Your task to perform on an android device: Go to eBay Image 0: 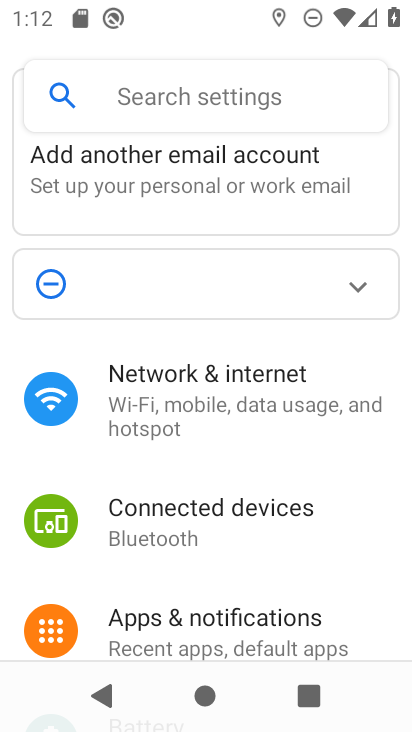
Step 0: press home button
Your task to perform on an android device: Go to eBay Image 1: 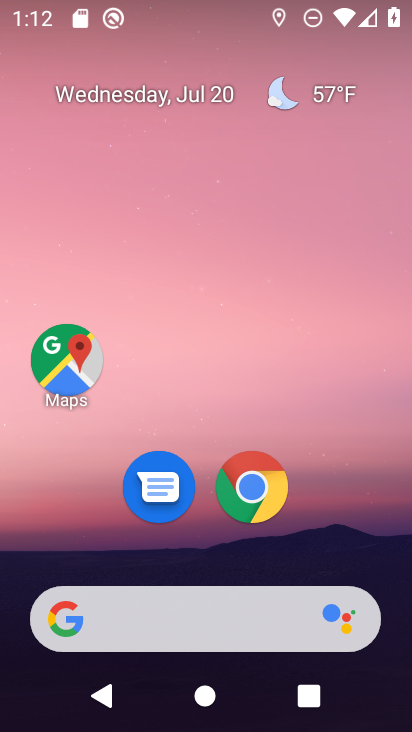
Step 1: drag from (348, 536) to (354, 178)
Your task to perform on an android device: Go to eBay Image 2: 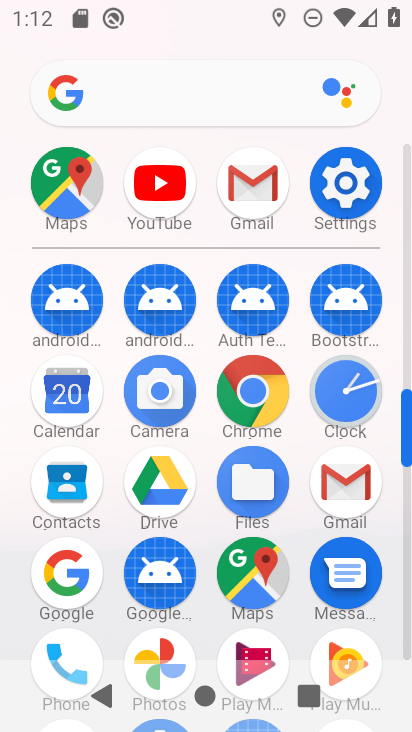
Step 2: click (269, 404)
Your task to perform on an android device: Go to eBay Image 3: 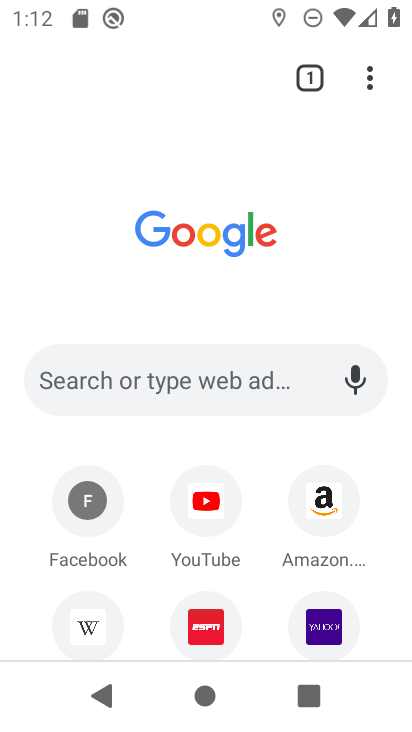
Step 3: drag from (250, 528) to (258, 357)
Your task to perform on an android device: Go to eBay Image 4: 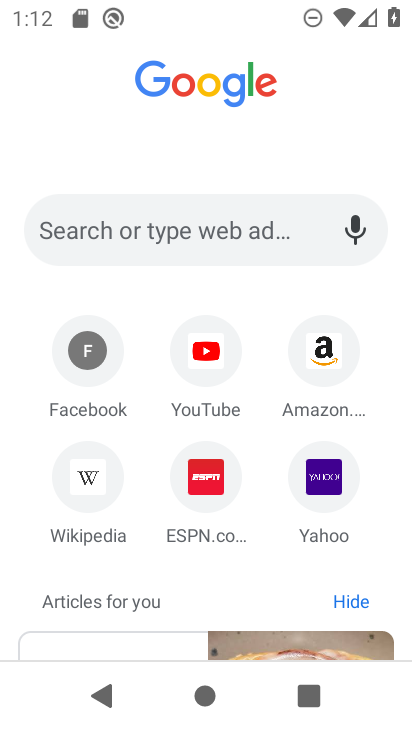
Step 4: click (240, 218)
Your task to perform on an android device: Go to eBay Image 5: 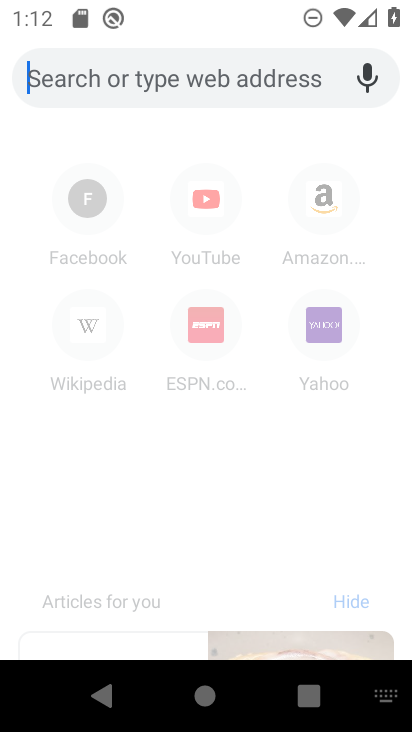
Step 5: type "ebay"
Your task to perform on an android device: Go to eBay Image 6: 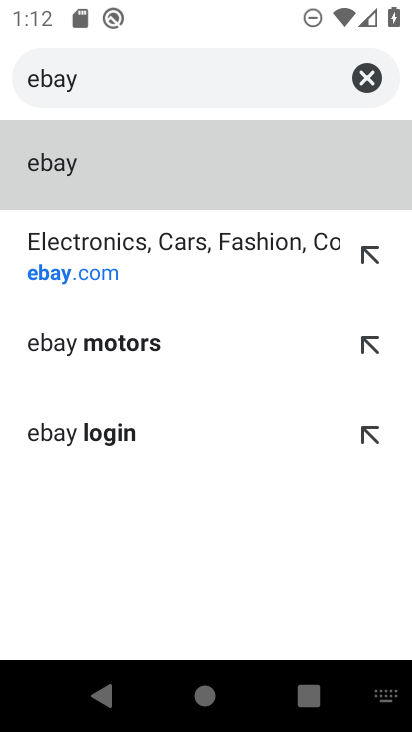
Step 6: click (259, 177)
Your task to perform on an android device: Go to eBay Image 7: 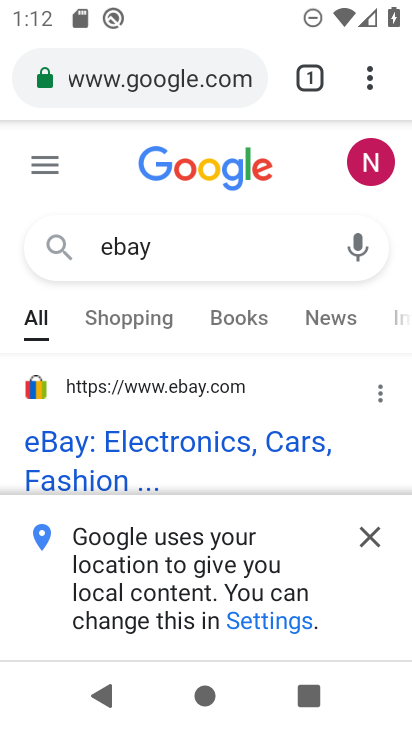
Step 7: task complete